Your task to perform on an android device: refresh tabs in the chrome app Image 0: 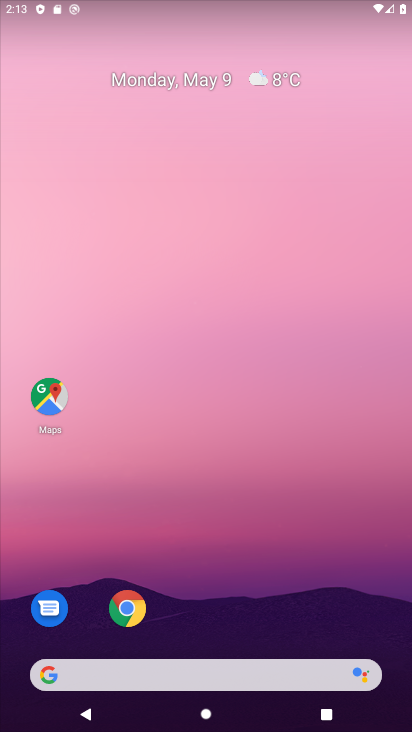
Step 0: click (118, 609)
Your task to perform on an android device: refresh tabs in the chrome app Image 1: 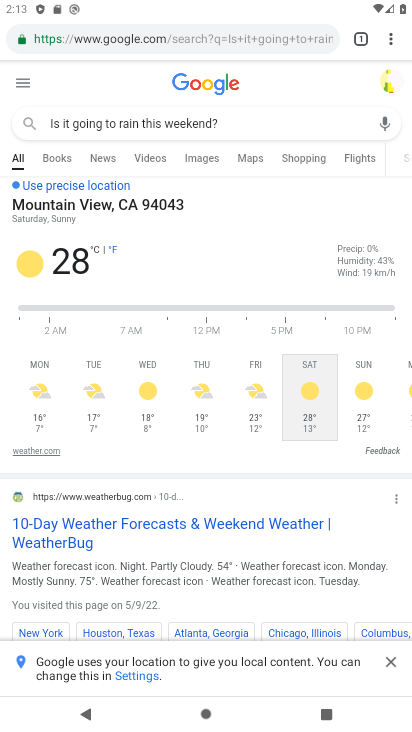
Step 1: click (390, 43)
Your task to perform on an android device: refresh tabs in the chrome app Image 2: 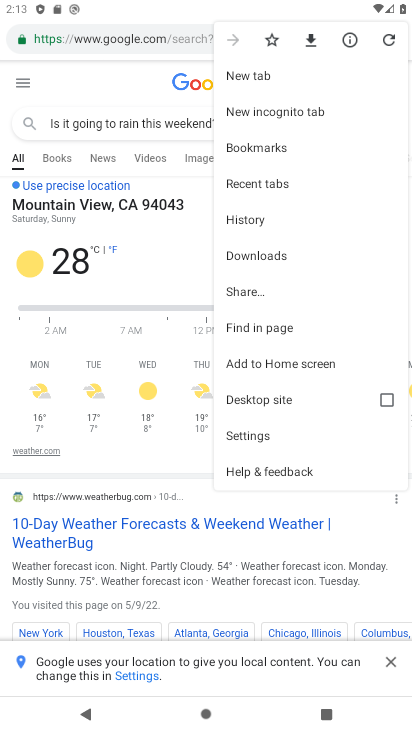
Step 2: click (387, 45)
Your task to perform on an android device: refresh tabs in the chrome app Image 3: 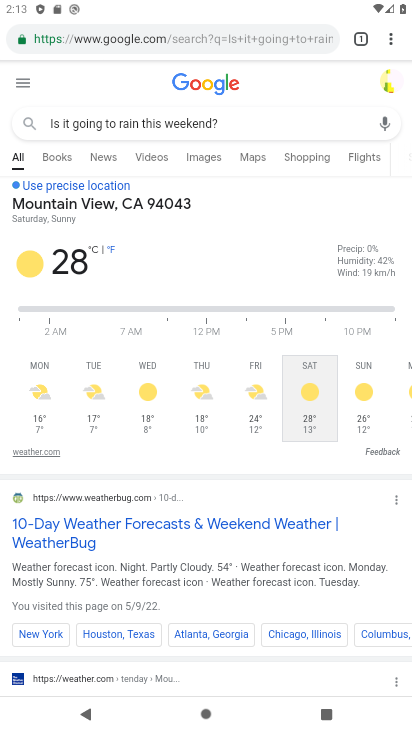
Step 3: click (394, 39)
Your task to perform on an android device: refresh tabs in the chrome app Image 4: 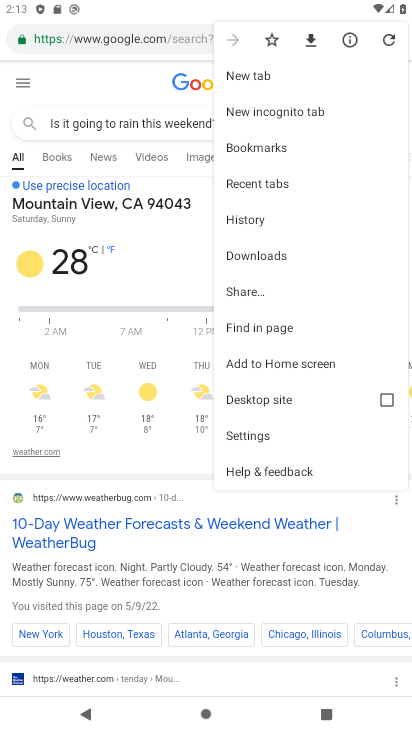
Step 4: click (394, 39)
Your task to perform on an android device: refresh tabs in the chrome app Image 5: 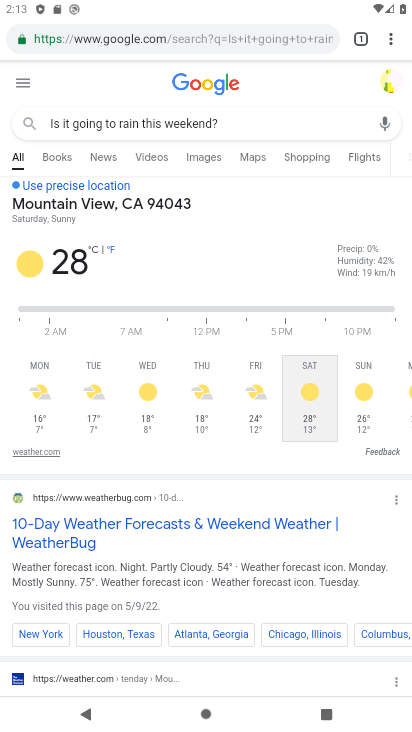
Step 5: task complete